Your task to perform on an android device: When is my next appointment? Image 0: 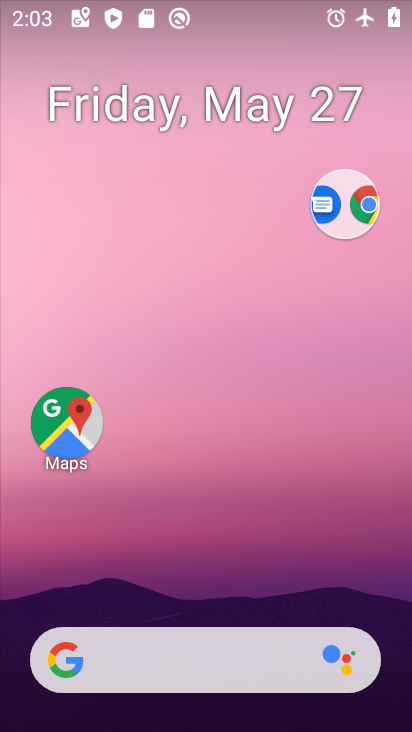
Step 0: drag from (164, 563) to (154, 312)
Your task to perform on an android device: When is my next appointment? Image 1: 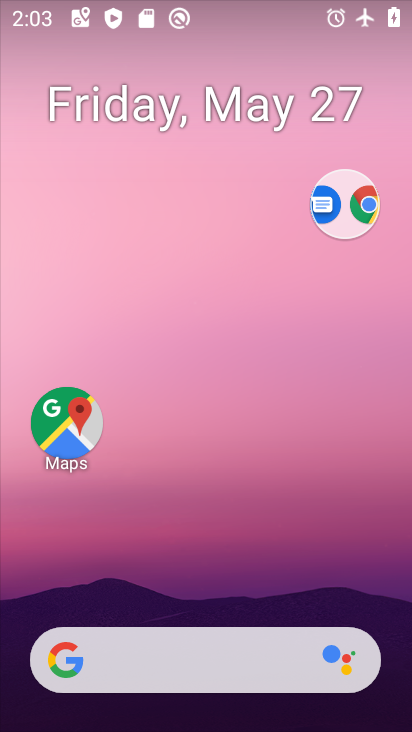
Step 1: drag from (170, 553) to (213, 123)
Your task to perform on an android device: When is my next appointment? Image 2: 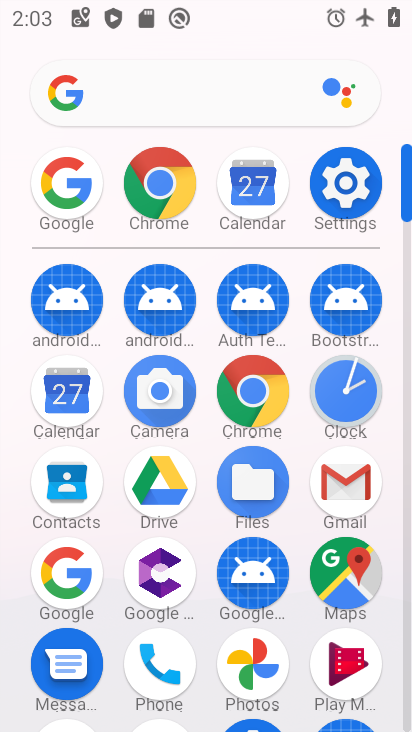
Step 2: drag from (153, 475) to (164, 314)
Your task to perform on an android device: When is my next appointment? Image 3: 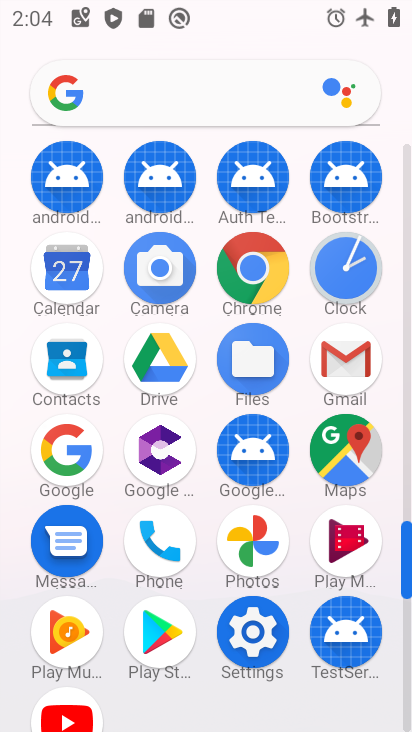
Step 3: click (76, 286)
Your task to perform on an android device: When is my next appointment? Image 4: 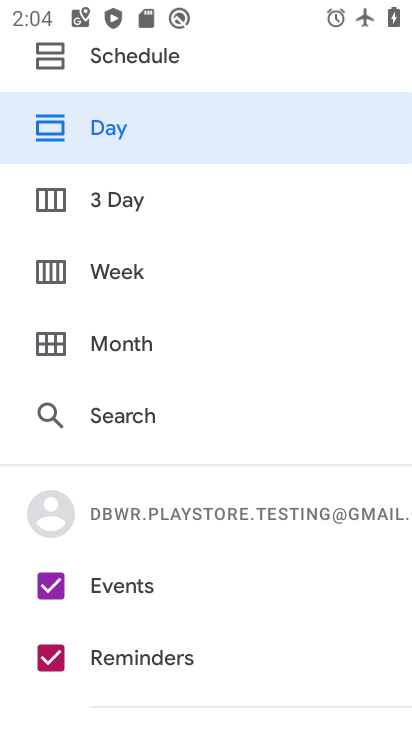
Step 4: press back button
Your task to perform on an android device: When is my next appointment? Image 5: 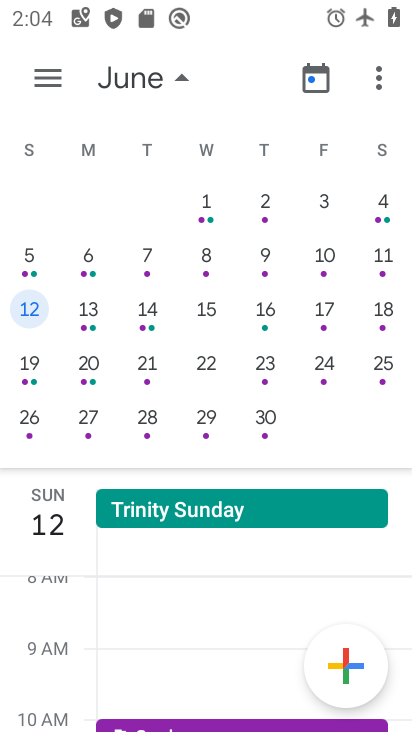
Step 5: drag from (42, 352) to (375, 313)
Your task to perform on an android device: When is my next appointment? Image 6: 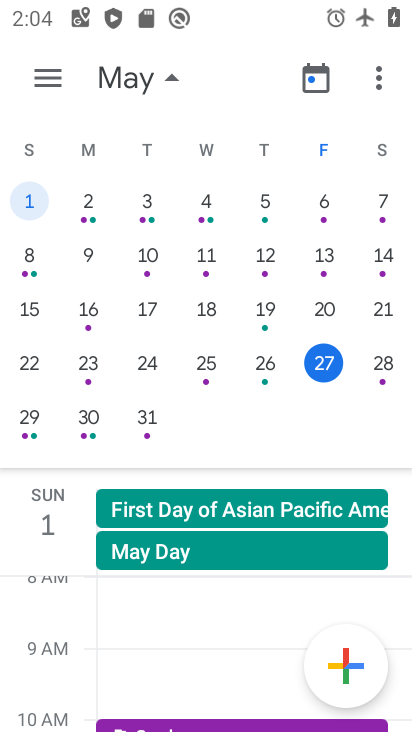
Step 6: click (311, 367)
Your task to perform on an android device: When is my next appointment? Image 7: 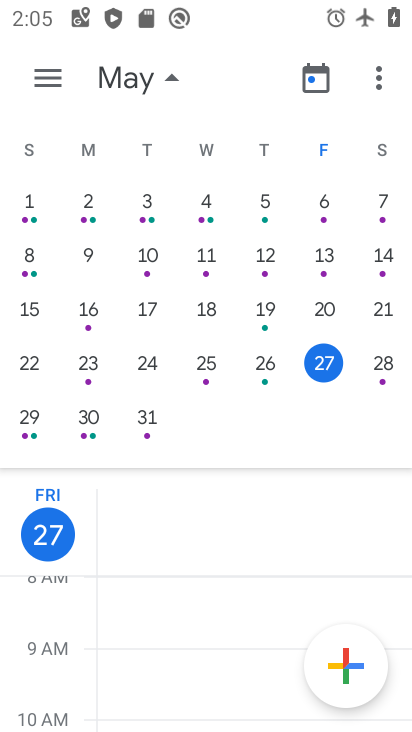
Step 7: click (338, 366)
Your task to perform on an android device: When is my next appointment? Image 8: 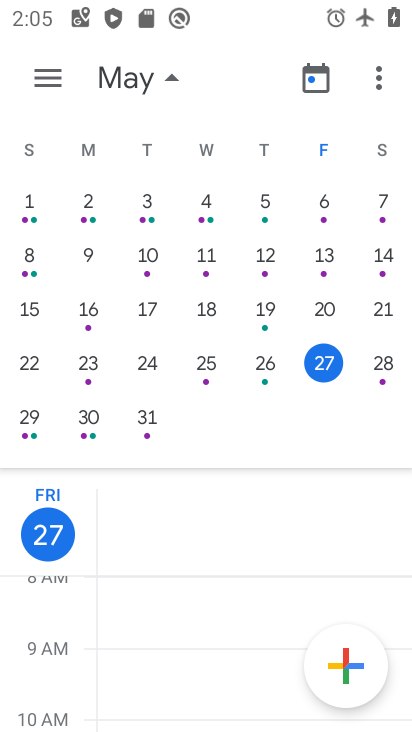
Step 8: task complete